Your task to perform on an android device: turn off notifications settings in the gmail app Image 0: 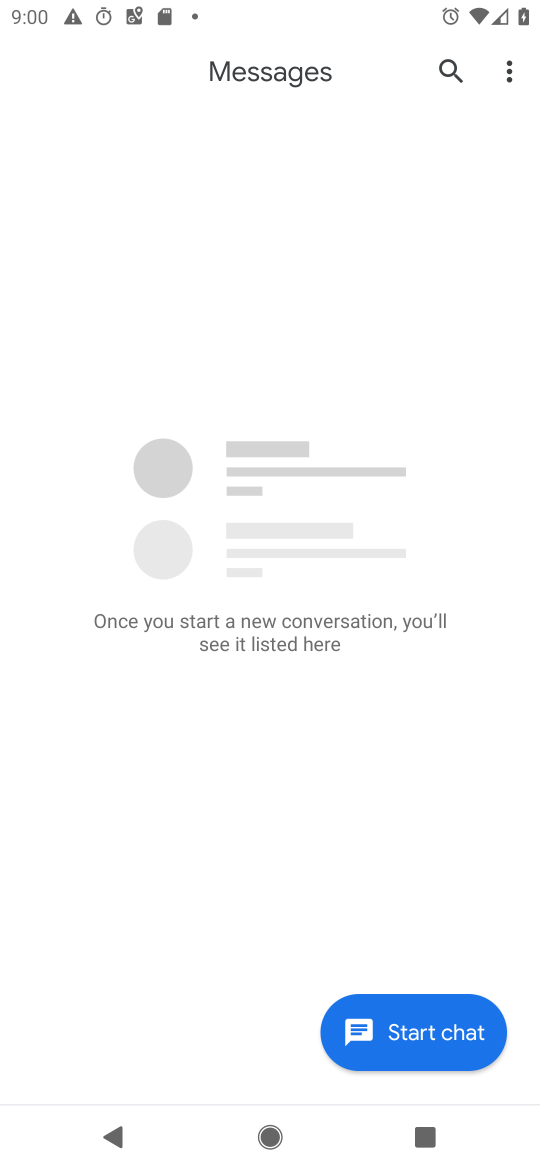
Step 0: drag from (323, 795) to (429, 390)
Your task to perform on an android device: turn off notifications settings in the gmail app Image 1: 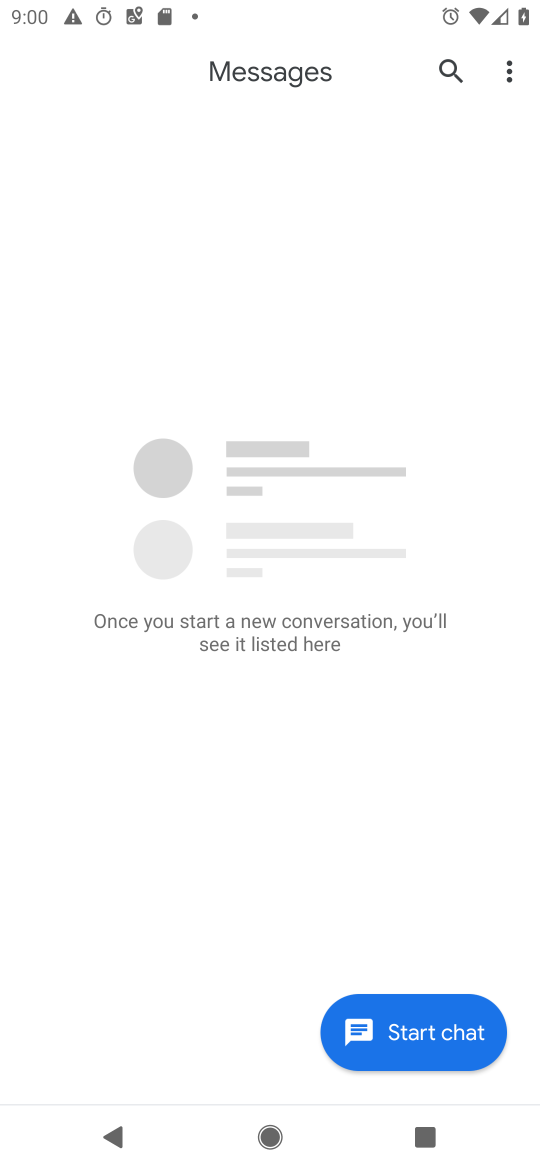
Step 1: press home button
Your task to perform on an android device: turn off notifications settings in the gmail app Image 2: 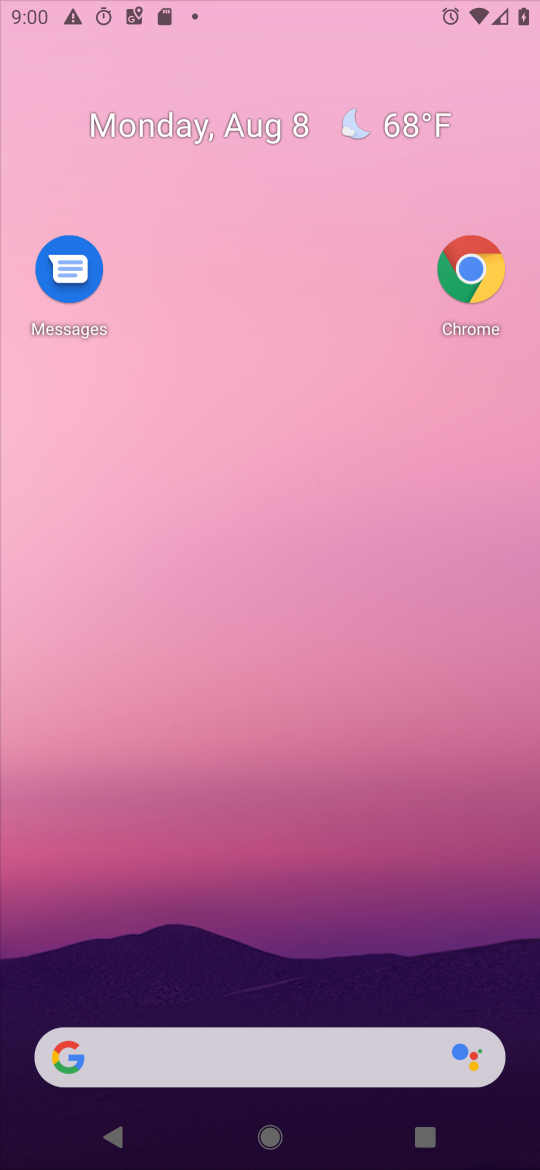
Step 2: drag from (300, 838) to (495, 7)
Your task to perform on an android device: turn off notifications settings in the gmail app Image 3: 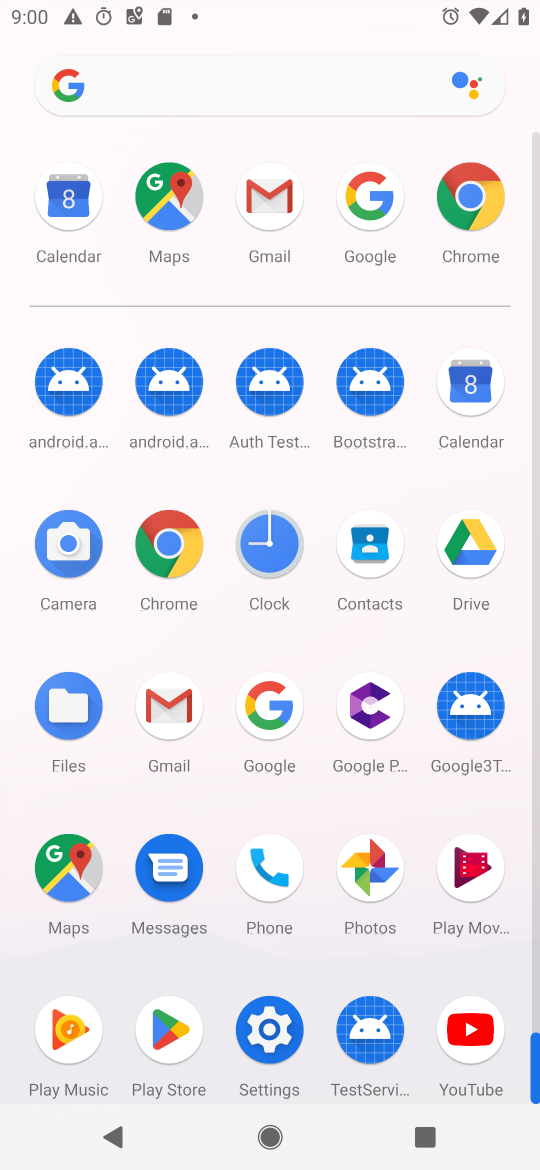
Step 3: click (157, 723)
Your task to perform on an android device: turn off notifications settings in the gmail app Image 4: 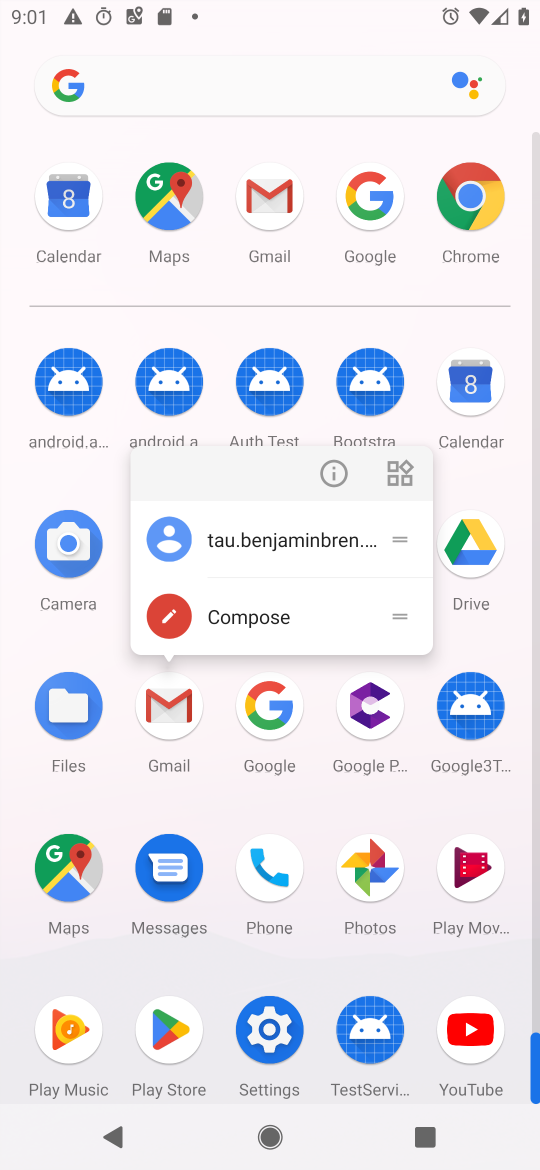
Step 4: click (342, 468)
Your task to perform on an android device: turn off notifications settings in the gmail app Image 5: 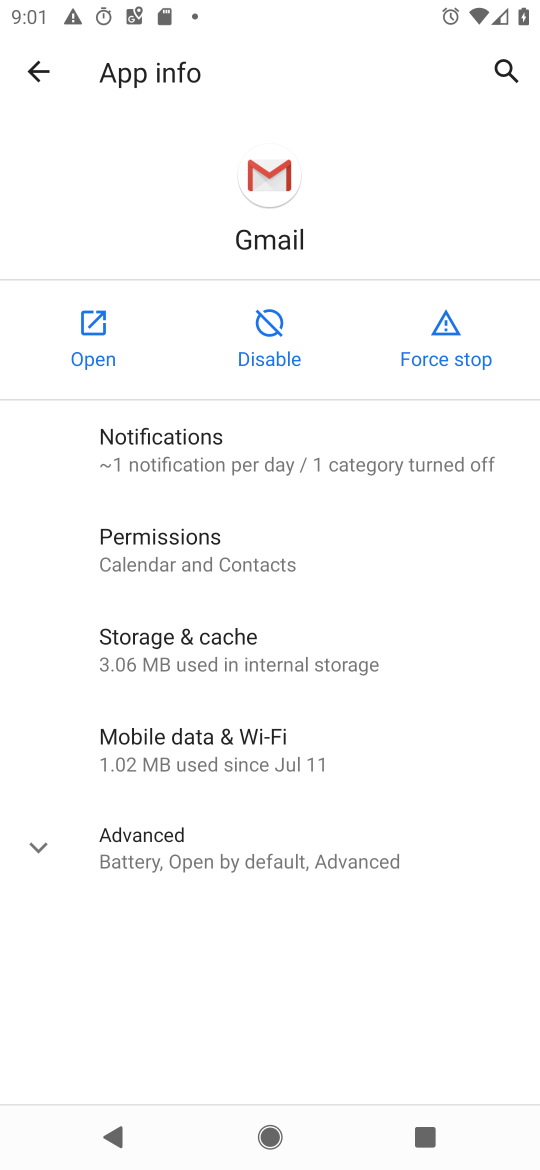
Step 5: click (80, 350)
Your task to perform on an android device: turn off notifications settings in the gmail app Image 6: 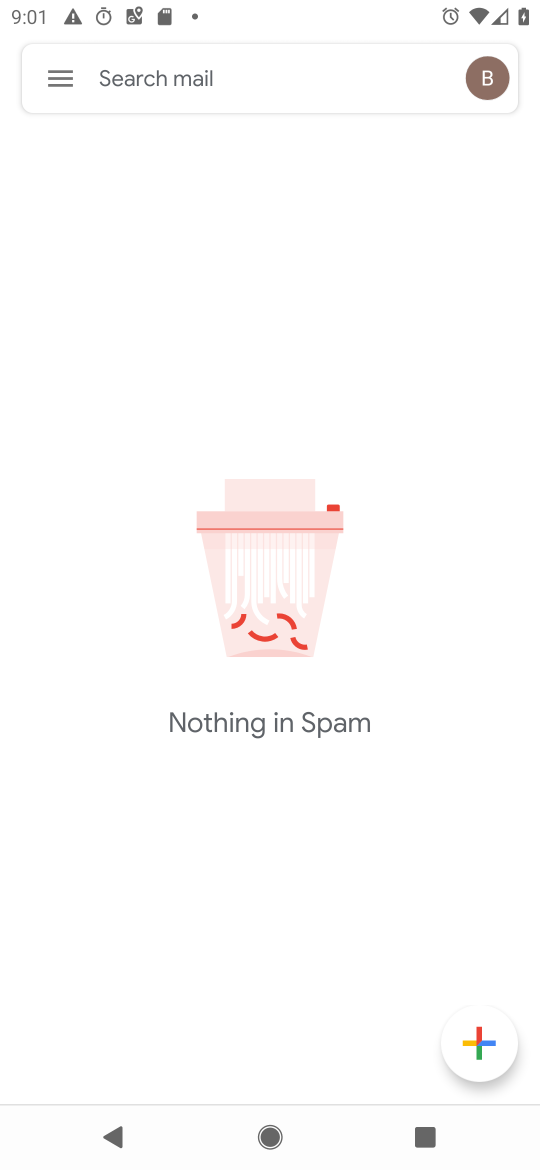
Step 6: click (69, 72)
Your task to perform on an android device: turn off notifications settings in the gmail app Image 7: 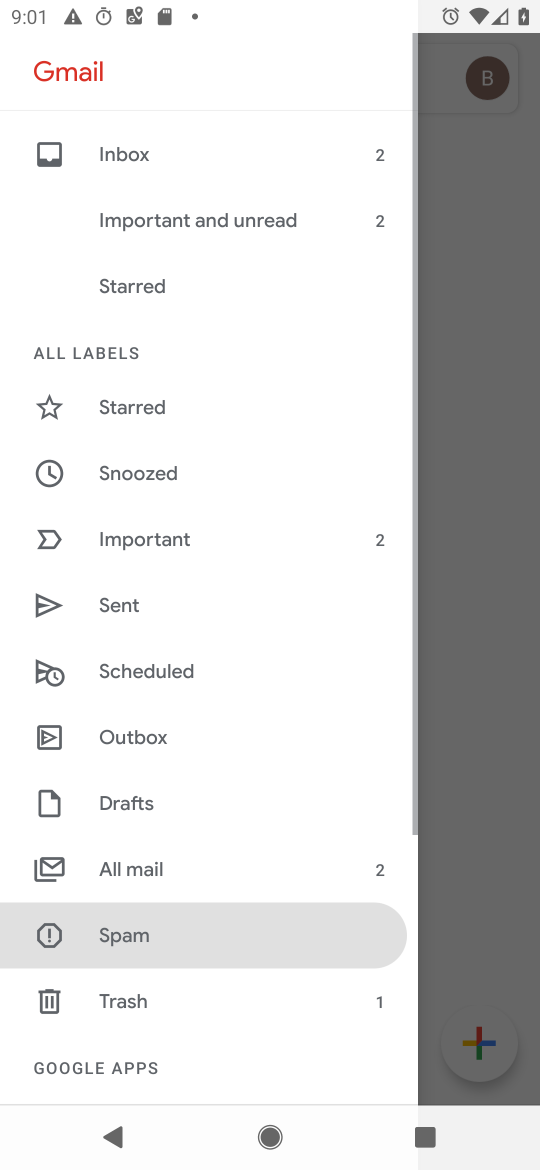
Step 7: drag from (164, 1003) to (364, 293)
Your task to perform on an android device: turn off notifications settings in the gmail app Image 8: 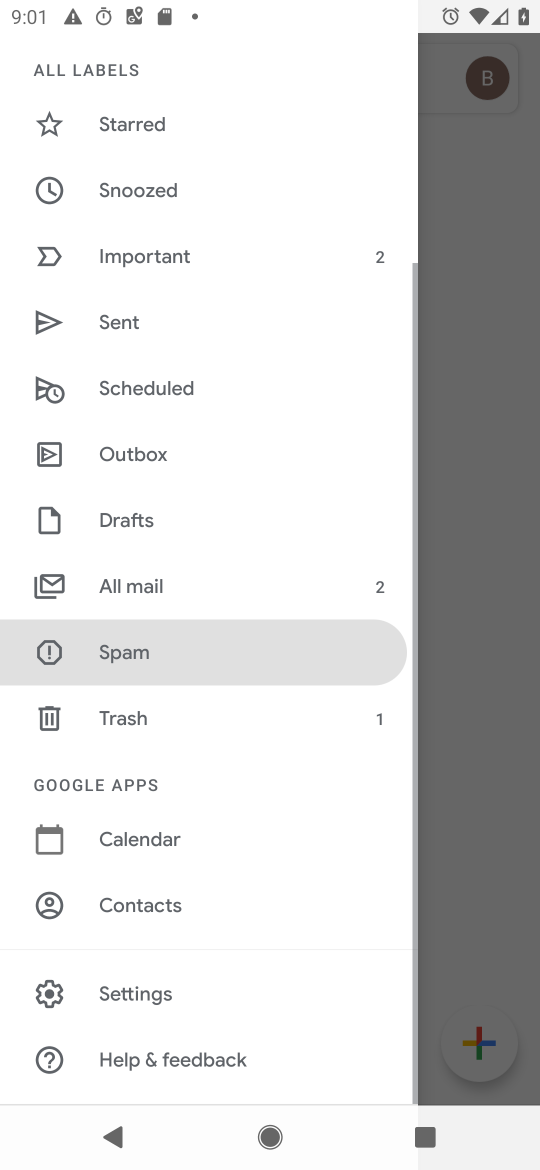
Step 8: click (197, 998)
Your task to perform on an android device: turn off notifications settings in the gmail app Image 9: 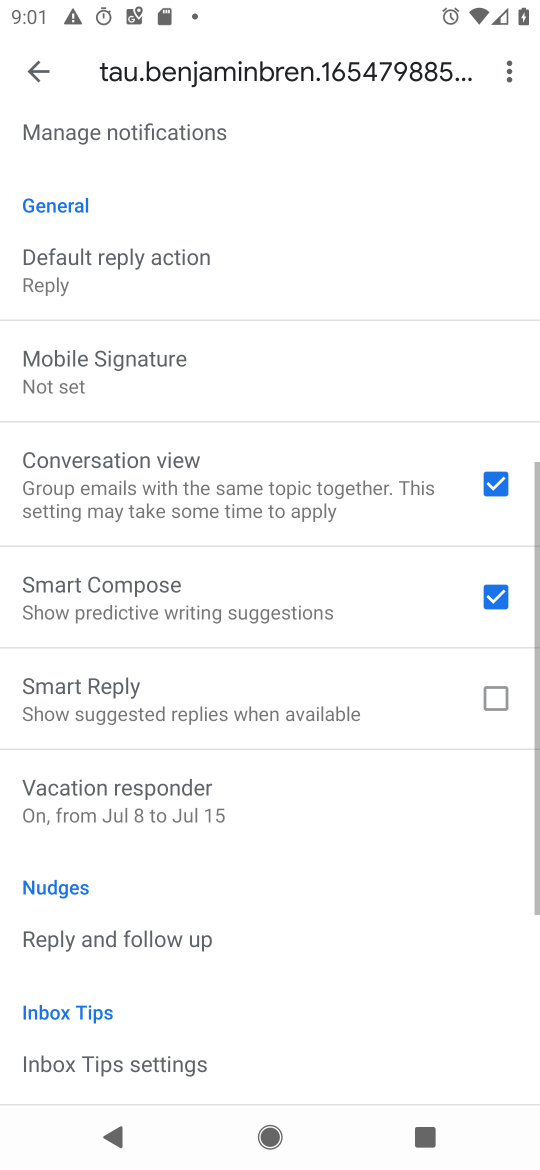
Step 9: drag from (291, 928) to (312, 199)
Your task to perform on an android device: turn off notifications settings in the gmail app Image 10: 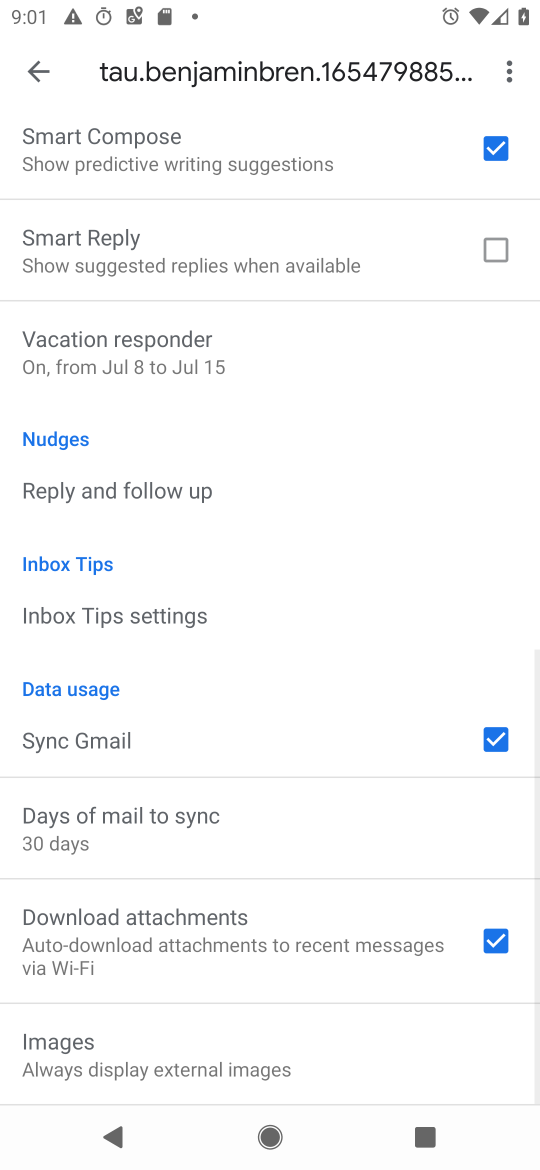
Step 10: drag from (338, 376) to (309, 775)
Your task to perform on an android device: turn off notifications settings in the gmail app Image 11: 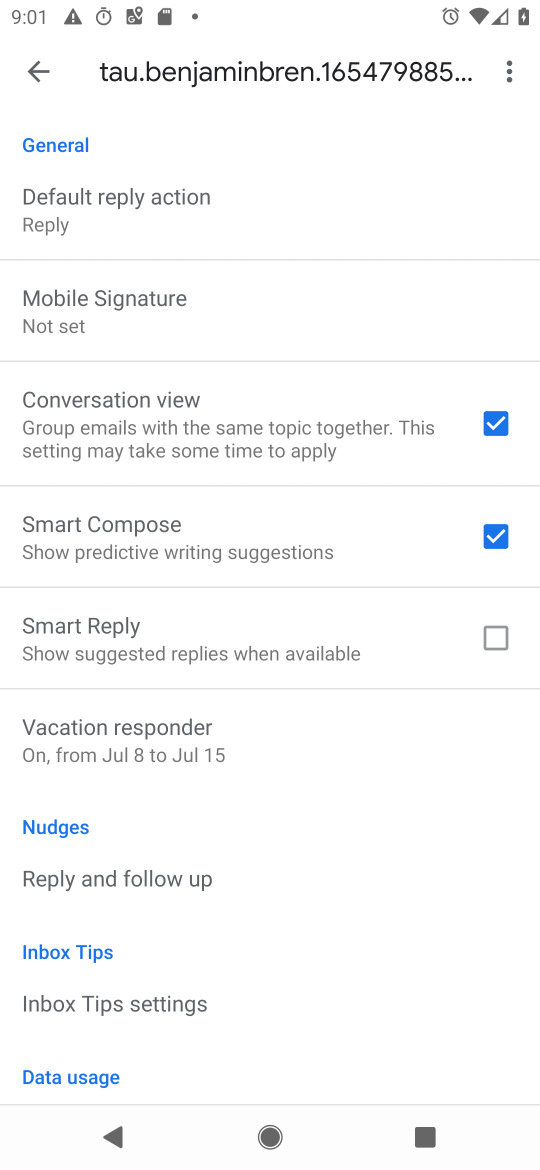
Step 11: drag from (228, 905) to (267, 263)
Your task to perform on an android device: turn off notifications settings in the gmail app Image 12: 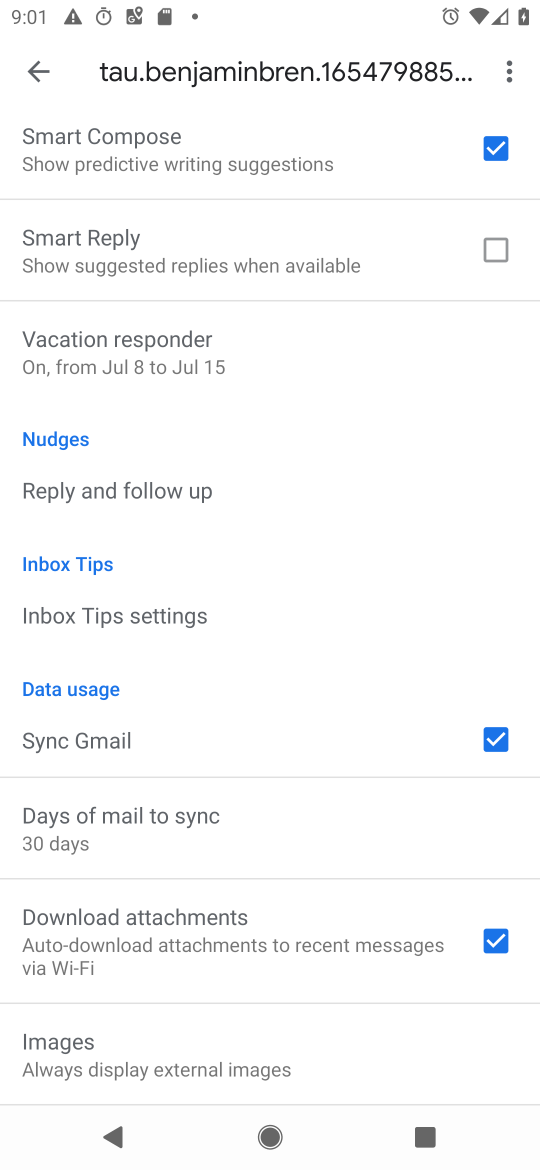
Step 12: drag from (278, 911) to (305, 342)
Your task to perform on an android device: turn off notifications settings in the gmail app Image 13: 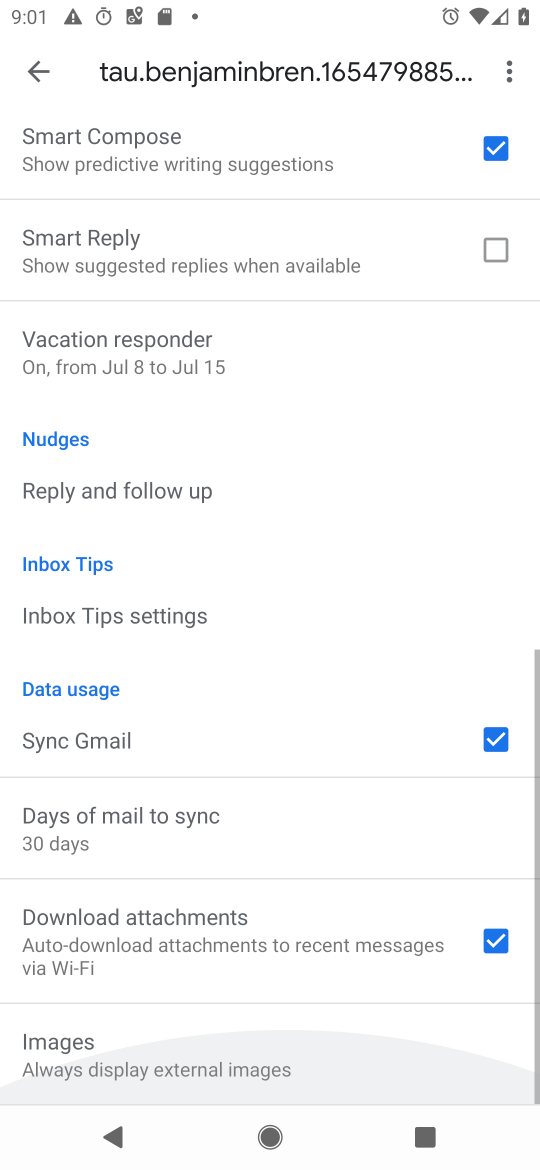
Step 13: drag from (254, 654) to (378, 1167)
Your task to perform on an android device: turn off notifications settings in the gmail app Image 14: 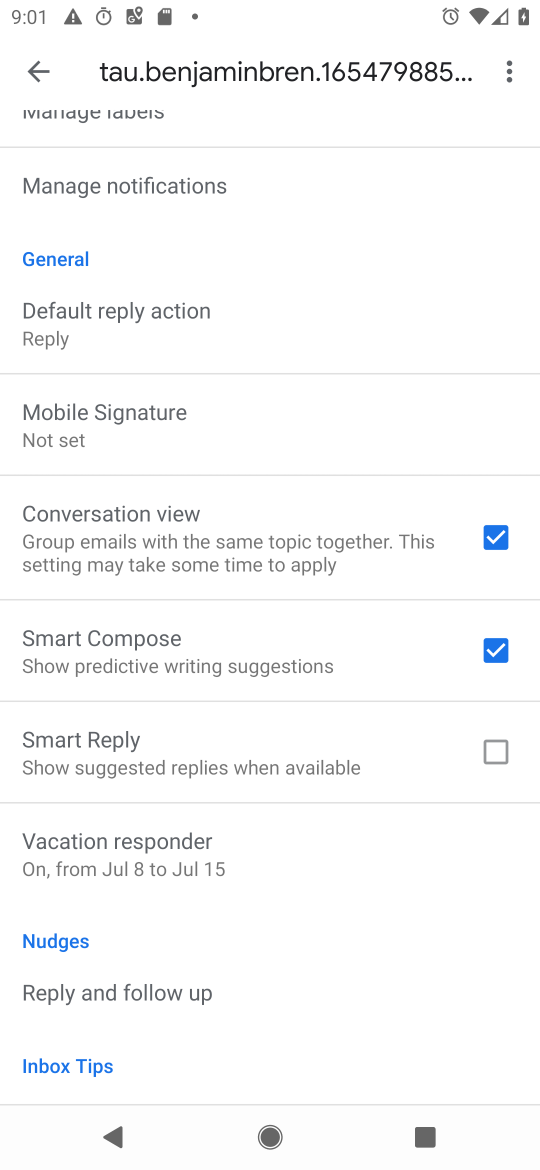
Step 14: click (101, 186)
Your task to perform on an android device: turn off notifications settings in the gmail app Image 15: 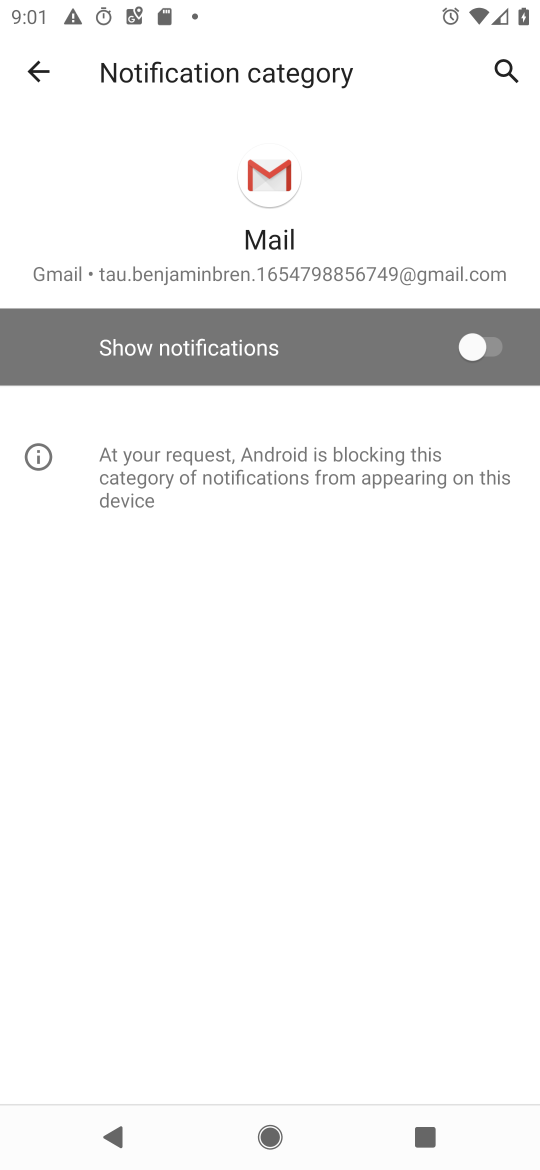
Step 15: task complete